Your task to perform on an android device: turn pop-ups on in chrome Image 0: 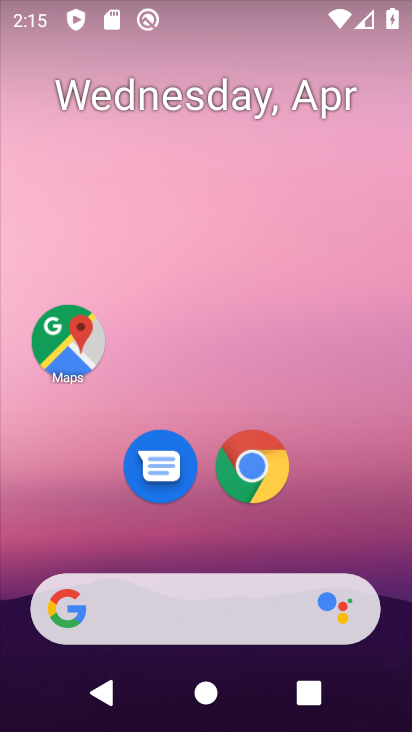
Step 0: drag from (314, 429) to (321, 186)
Your task to perform on an android device: turn pop-ups on in chrome Image 1: 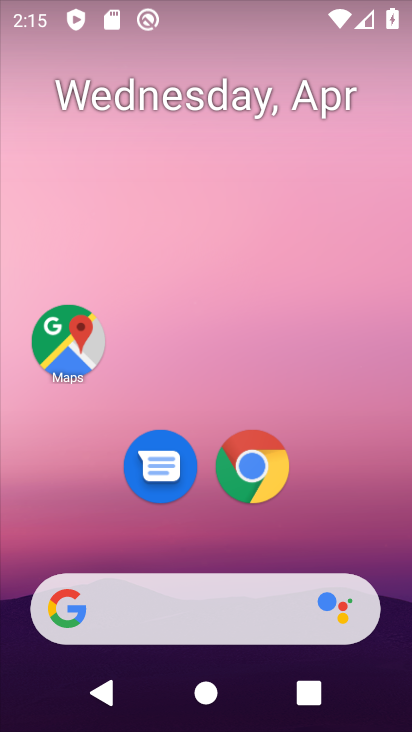
Step 1: drag from (324, 525) to (321, 147)
Your task to perform on an android device: turn pop-ups on in chrome Image 2: 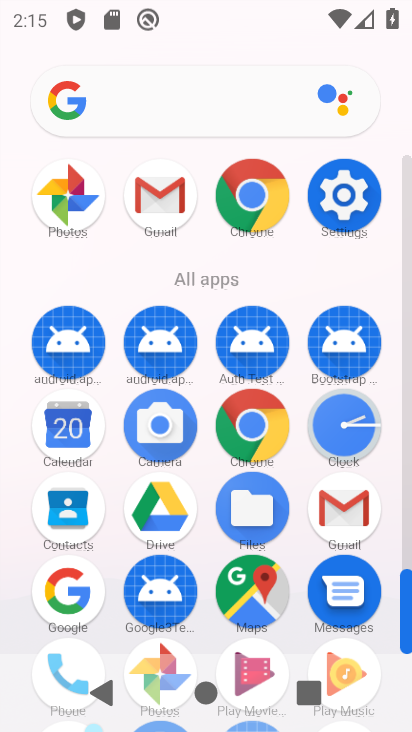
Step 2: click (266, 194)
Your task to perform on an android device: turn pop-ups on in chrome Image 3: 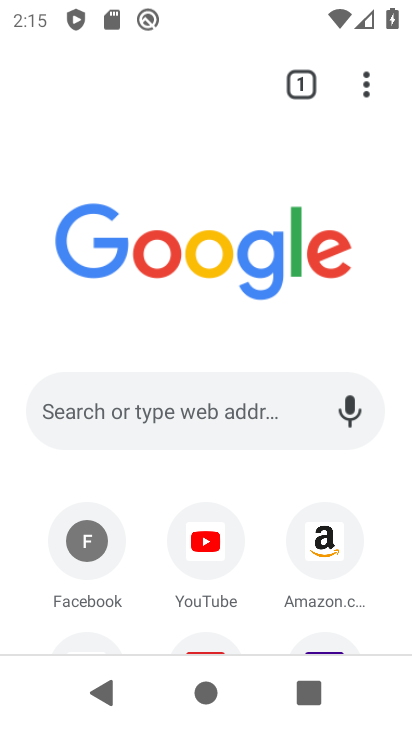
Step 3: click (369, 85)
Your task to perform on an android device: turn pop-ups on in chrome Image 4: 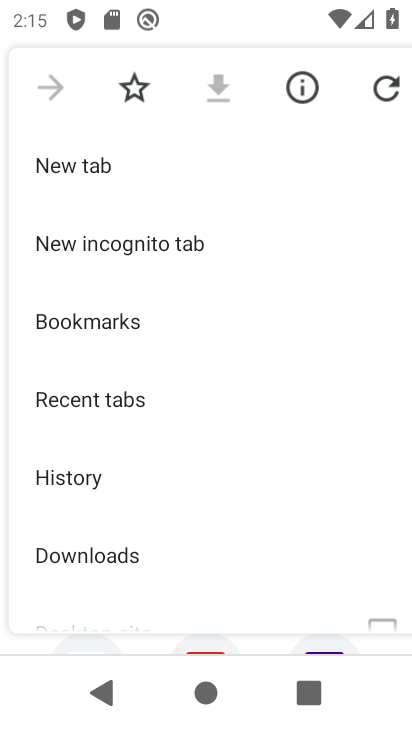
Step 4: drag from (181, 532) to (183, 218)
Your task to perform on an android device: turn pop-ups on in chrome Image 5: 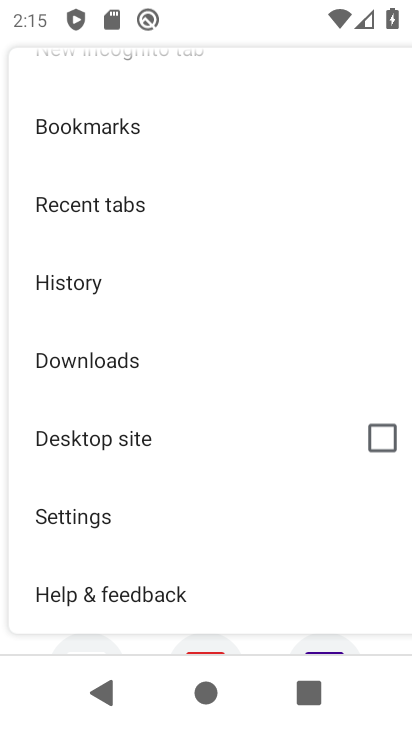
Step 5: click (137, 520)
Your task to perform on an android device: turn pop-ups on in chrome Image 6: 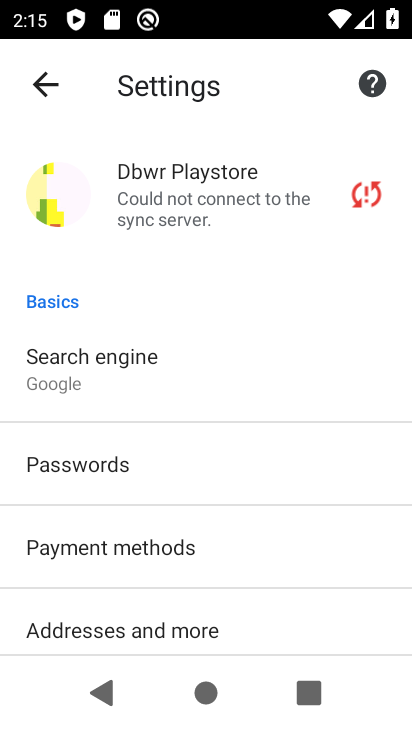
Step 6: drag from (170, 598) to (228, 229)
Your task to perform on an android device: turn pop-ups on in chrome Image 7: 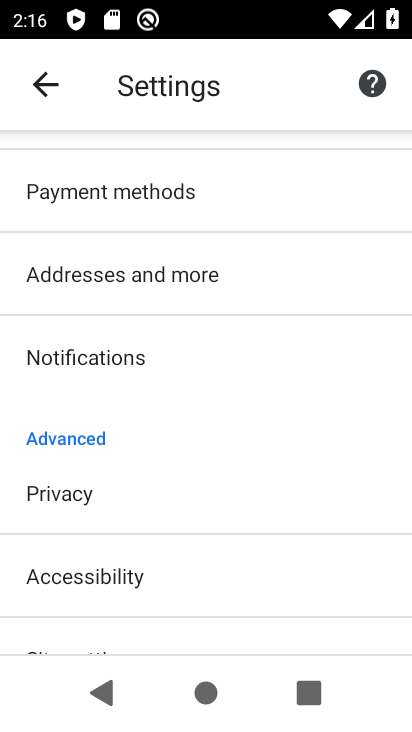
Step 7: drag from (191, 583) to (285, 193)
Your task to perform on an android device: turn pop-ups on in chrome Image 8: 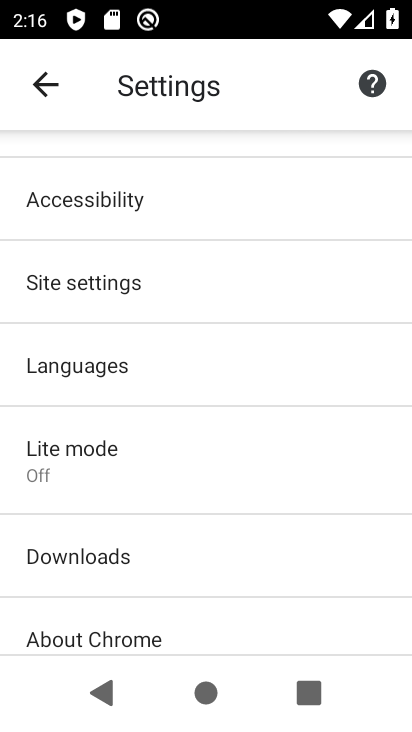
Step 8: drag from (135, 563) to (178, 352)
Your task to perform on an android device: turn pop-ups on in chrome Image 9: 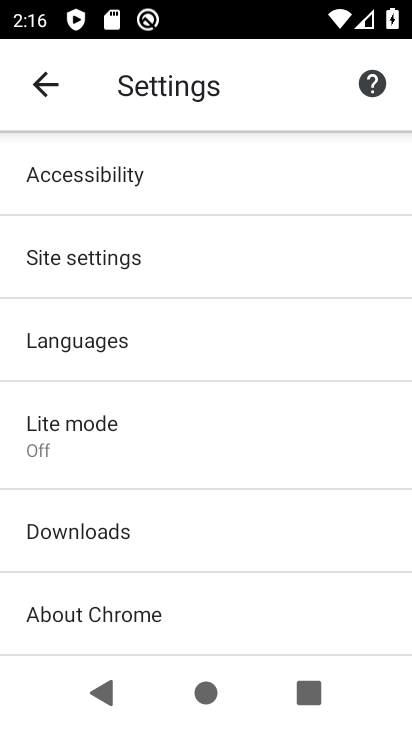
Step 9: click (185, 264)
Your task to perform on an android device: turn pop-ups on in chrome Image 10: 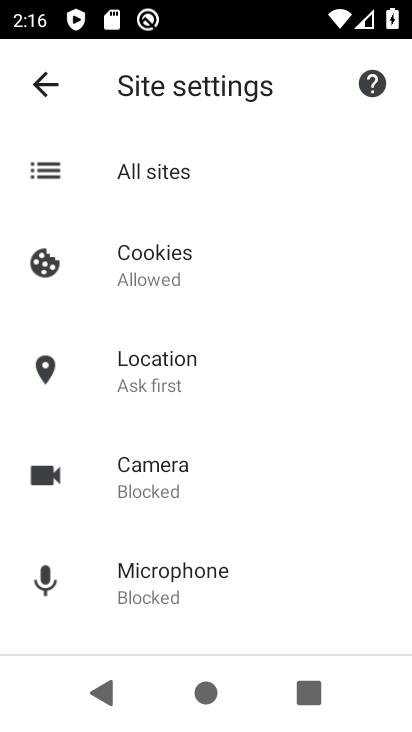
Step 10: drag from (192, 557) to (245, 211)
Your task to perform on an android device: turn pop-ups on in chrome Image 11: 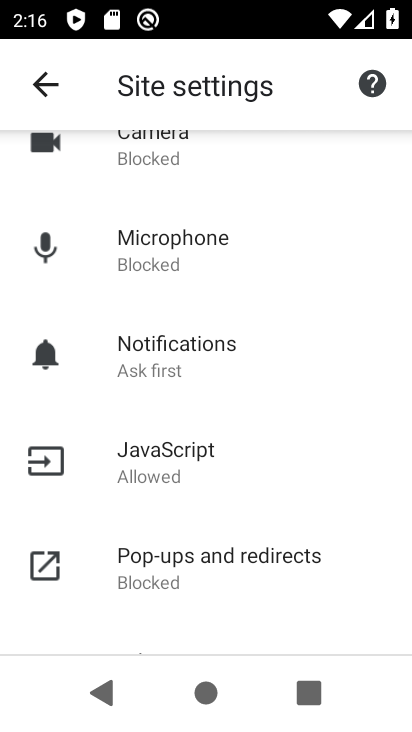
Step 11: click (183, 555)
Your task to perform on an android device: turn pop-ups on in chrome Image 12: 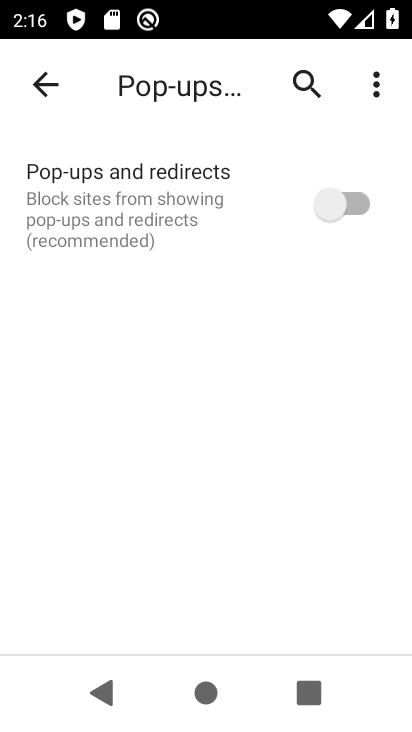
Step 12: click (346, 198)
Your task to perform on an android device: turn pop-ups on in chrome Image 13: 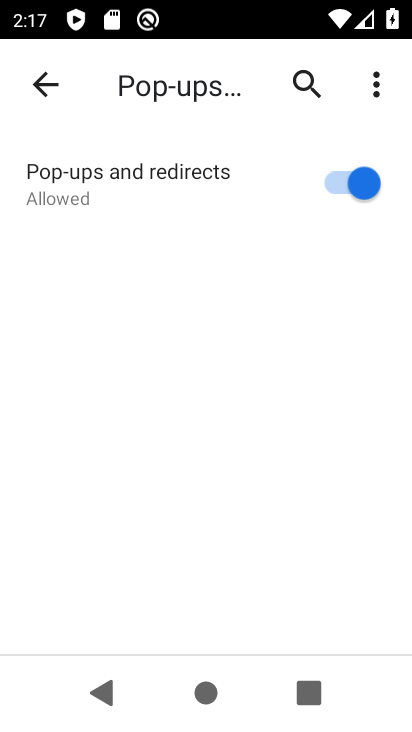
Step 13: task complete